Your task to perform on an android device: turn on showing notifications on the lock screen Image 0: 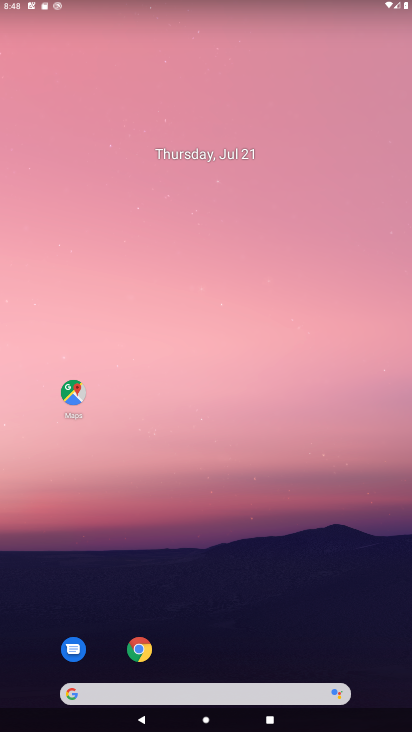
Step 0: drag from (205, 646) to (243, 67)
Your task to perform on an android device: turn on showing notifications on the lock screen Image 1: 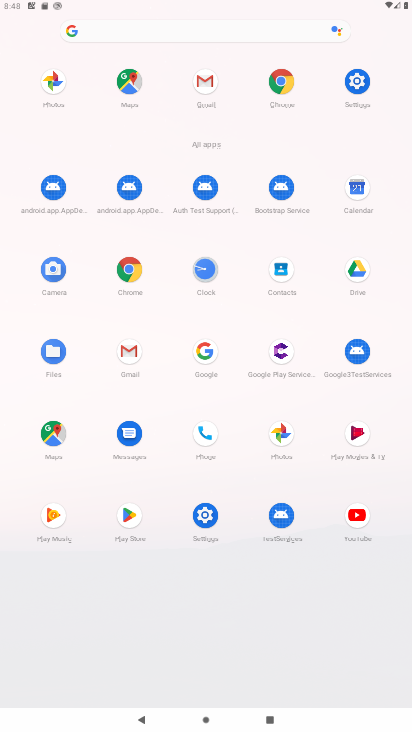
Step 1: click (354, 82)
Your task to perform on an android device: turn on showing notifications on the lock screen Image 2: 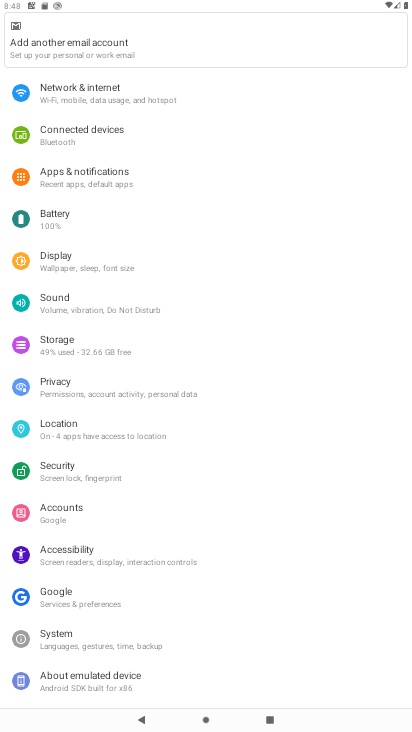
Step 2: click (113, 174)
Your task to perform on an android device: turn on showing notifications on the lock screen Image 3: 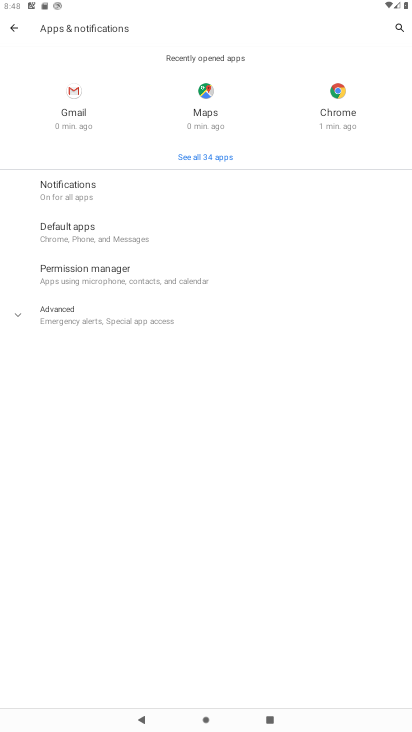
Step 3: click (53, 192)
Your task to perform on an android device: turn on showing notifications on the lock screen Image 4: 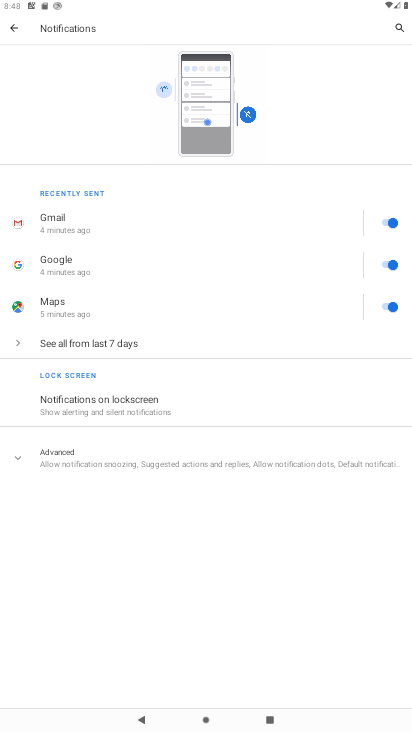
Step 4: click (84, 413)
Your task to perform on an android device: turn on showing notifications on the lock screen Image 5: 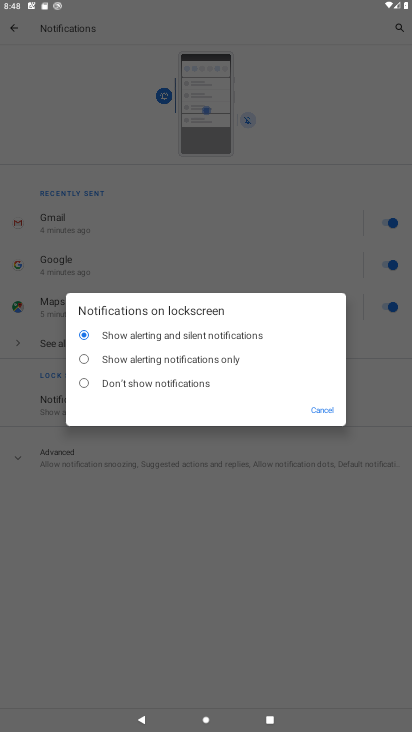
Step 5: task complete